Your task to perform on an android device: Open Amazon Image 0: 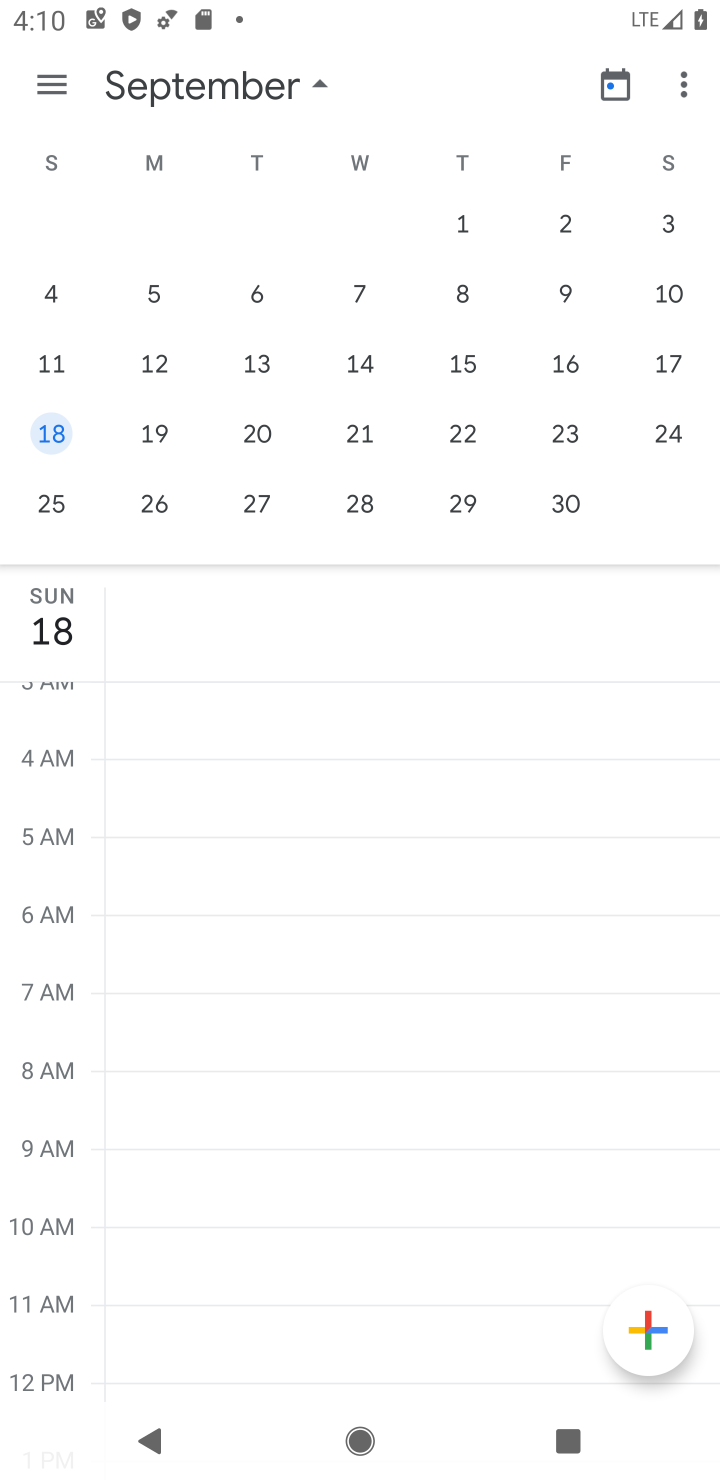
Step 0: press home button
Your task to perform on an android device: Open Amazon Image 1: 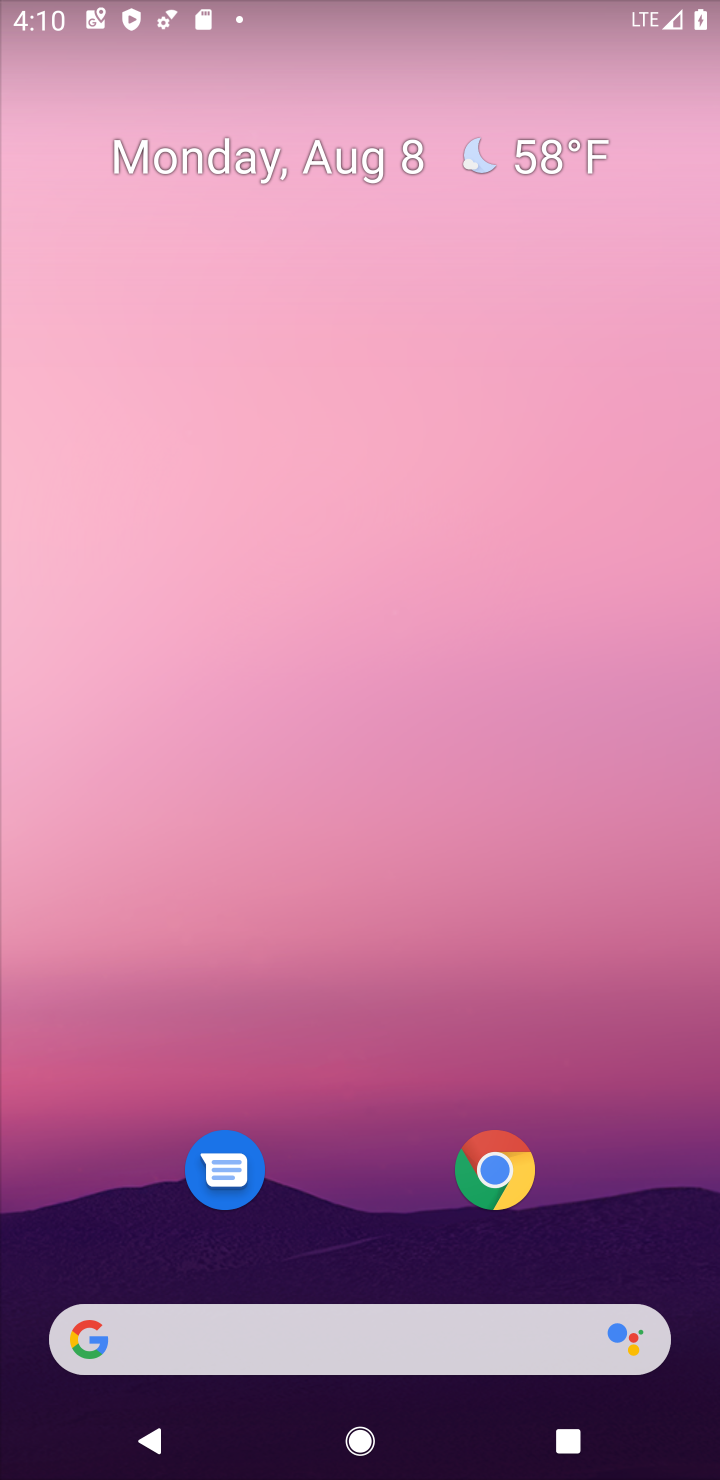
Step 1: click (506, 1157)
Your task to perform on an android device: Open Amazon Image 2: 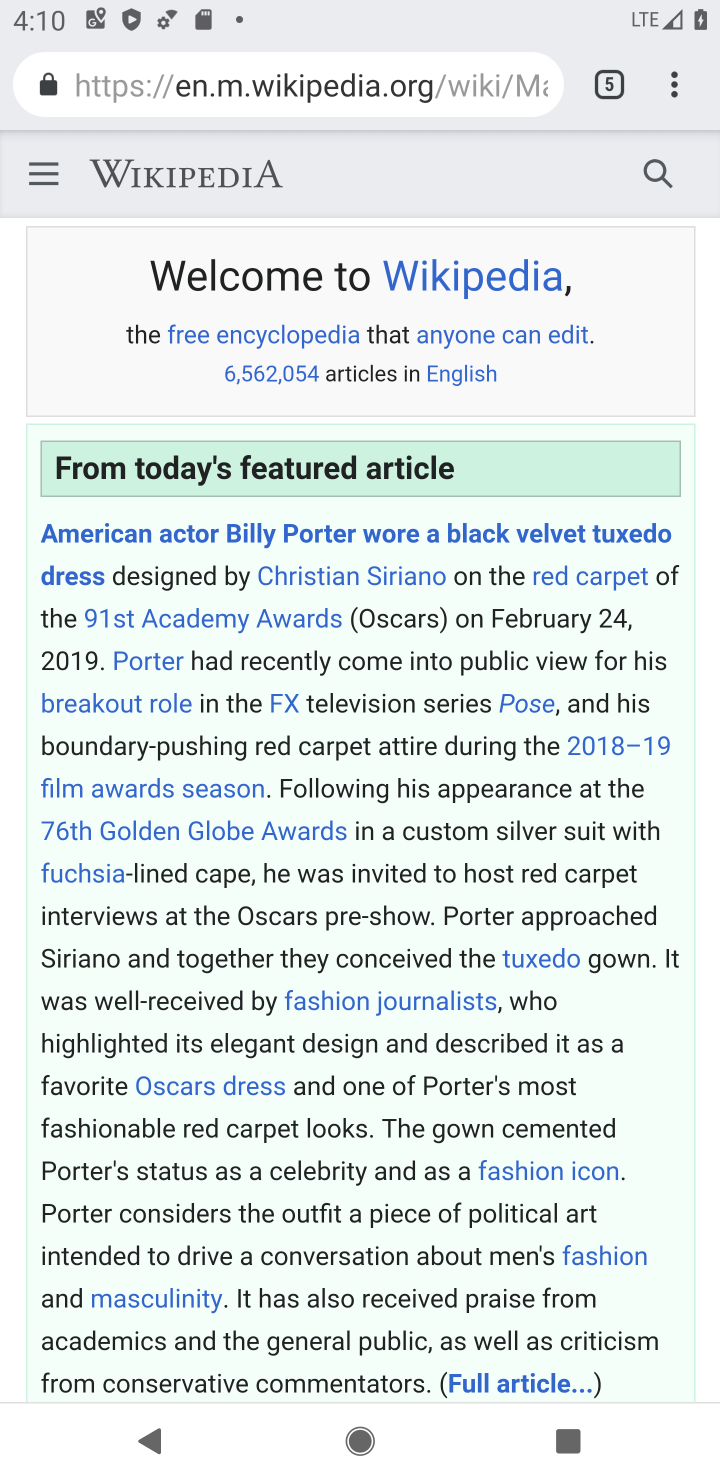
Step 2: click (588, 73)
Your task to perform on an android device: Open Amazon Image 3: 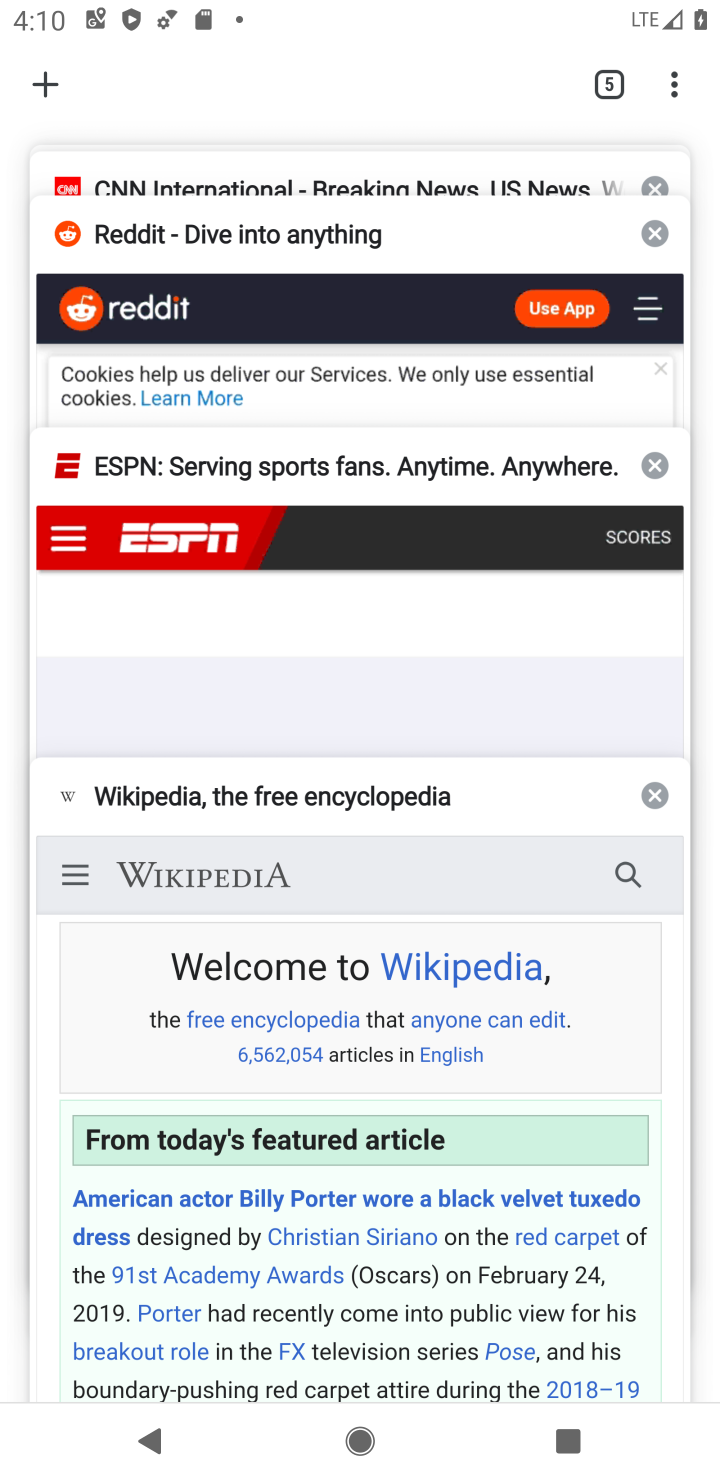
Step 3: click (39, 81)
Your task to perform on an android device: Open Amazon Image 4: 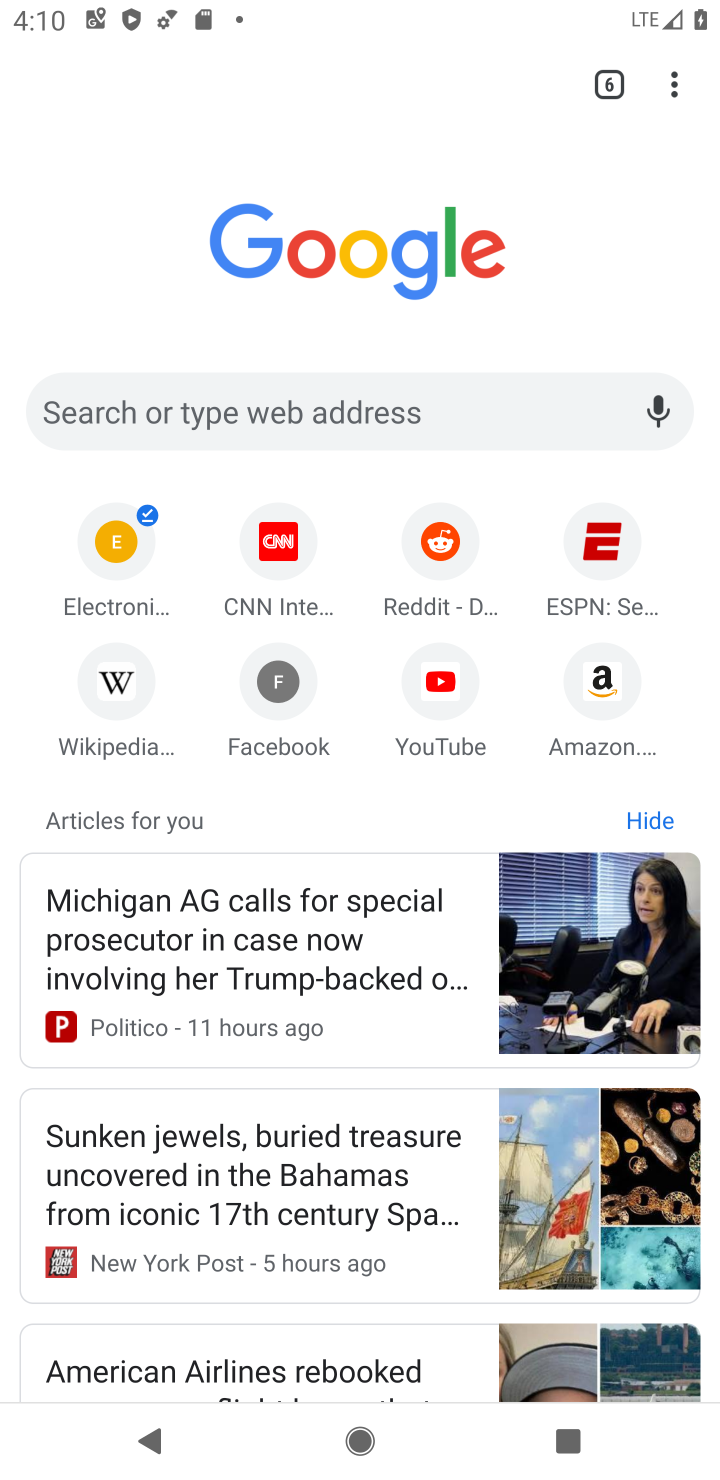
Step 4: click (591, 664)
Your task to perform on an android device: Open Amazon Image 5: 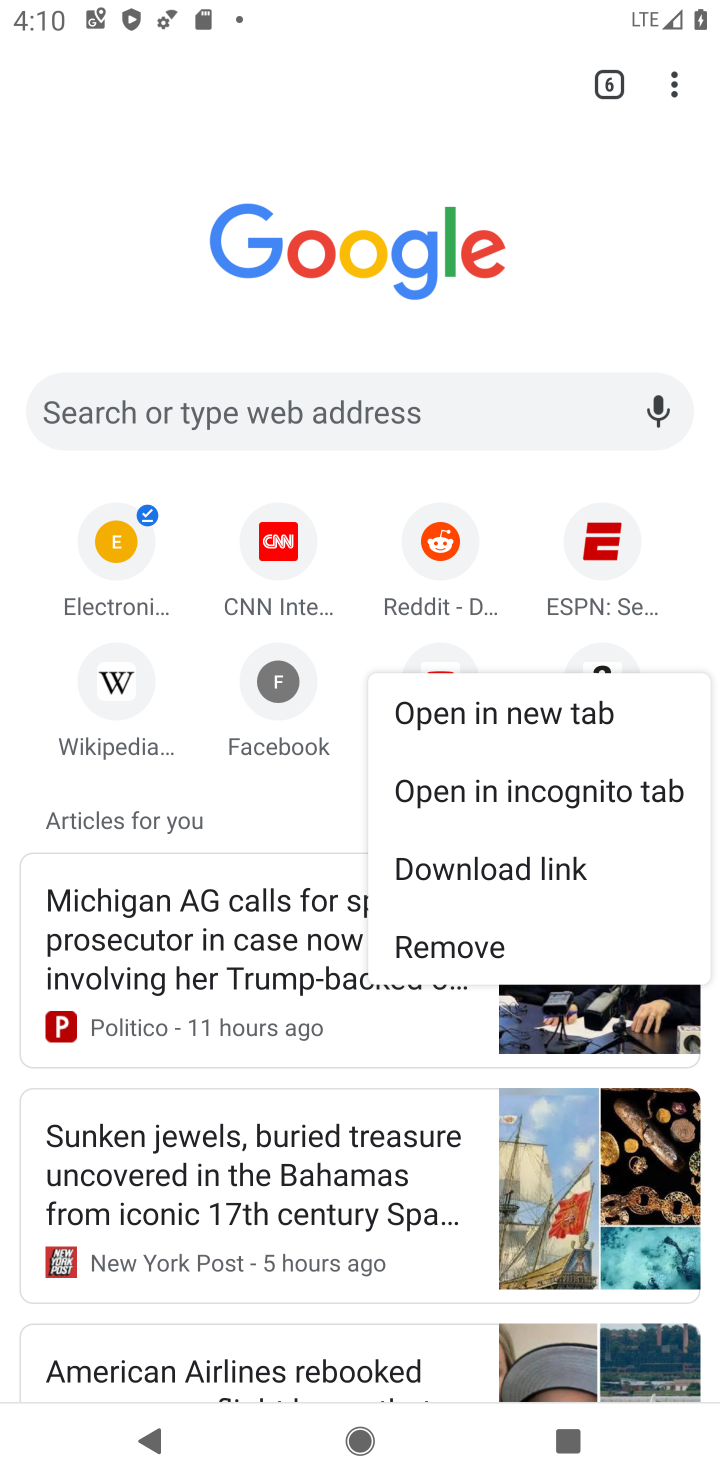
Step 5: click (625, 656)
Your task to perform on an android device: Open Amazon Image 6: 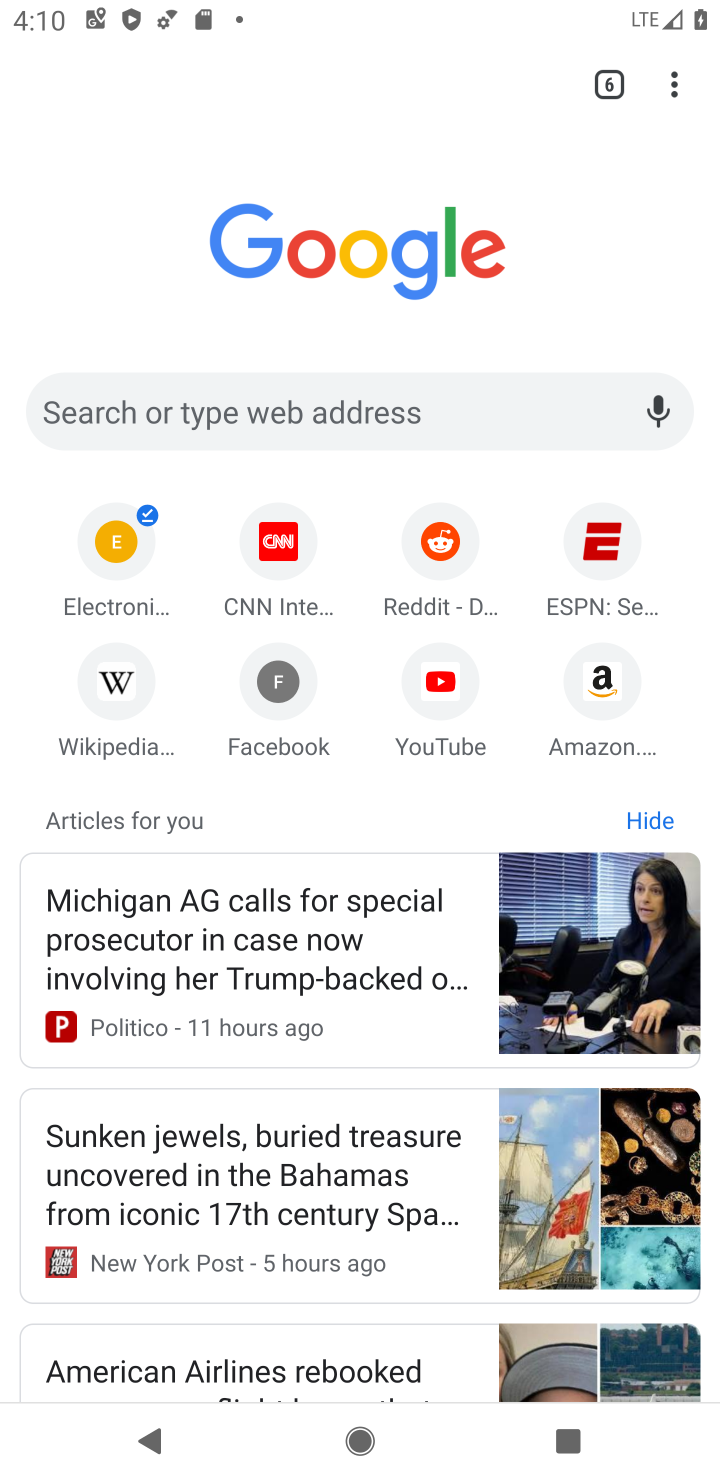
Step 6: click (613, 682)
Your task to perform on an android device: Open Amazon Image 7: 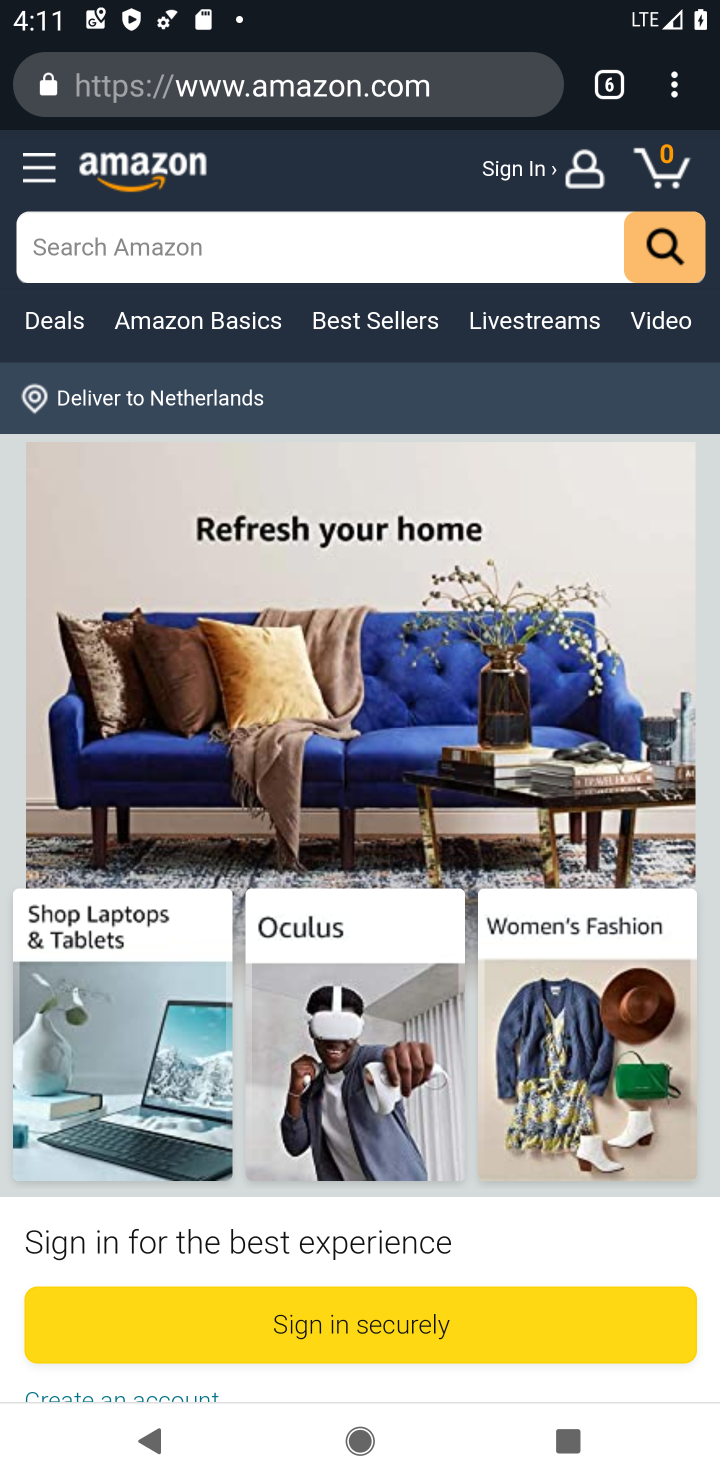
Step 7: task complete